Your task to perform on an android device: see tabs open on other devices in the chrome app Image 0: 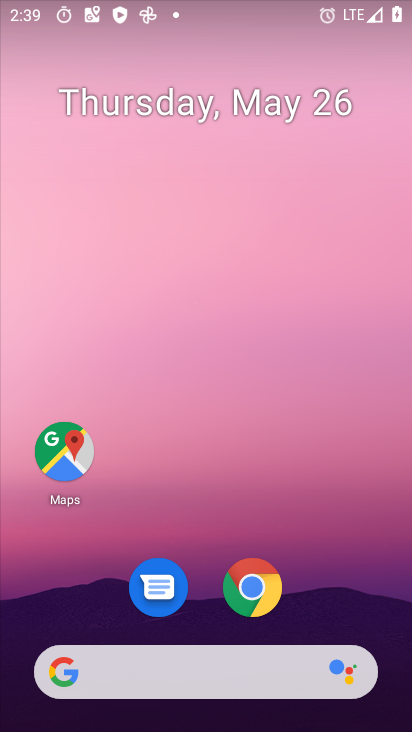
Step 0: drag from (385, 616) to (382, 162)
Your task to perform on an android device: see tabs open on other devices in the chrome app Image 1: 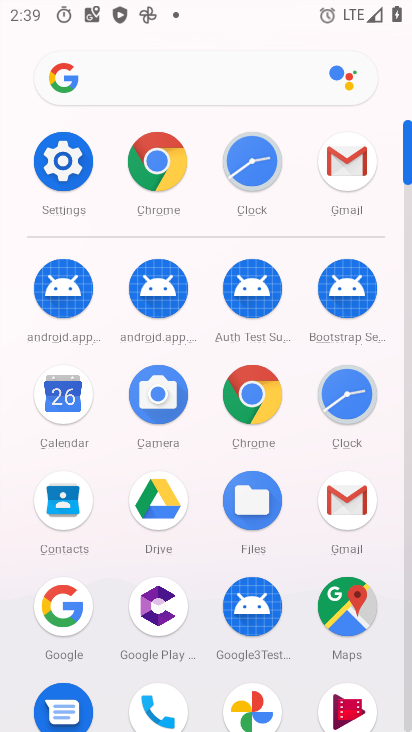
Step 1: click (271, 396)
Your task to perform on an android device: see tabs open on other devices in the chrome app Image 2: 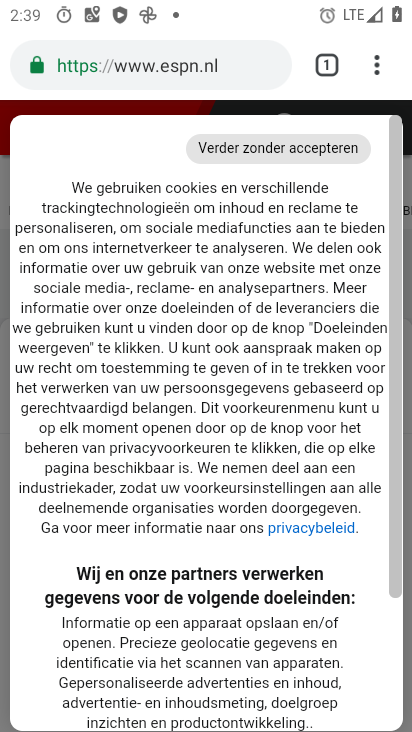
Step 2: click (373, 68)
Your task to perform on an android device: see tabs open on other devices in the chrome app Image 3: 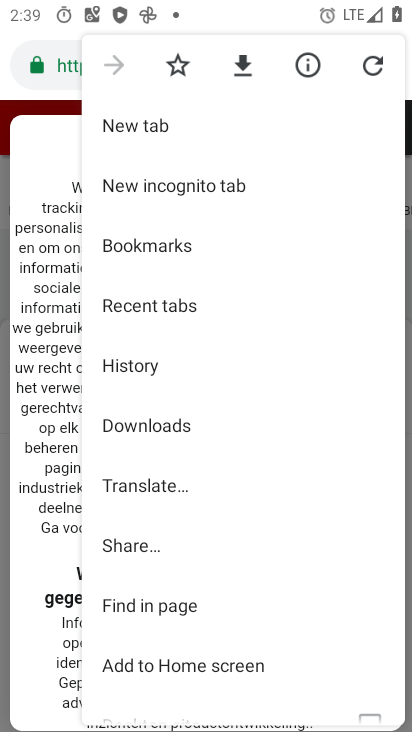
Step 3: click (189, 317)
Your task to perform on an android device: see tabs open on other devices in the chrome app Image 4: 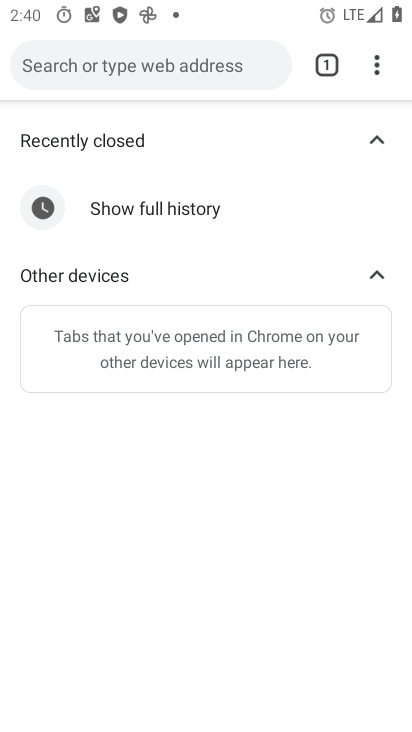
Step 4: click (327, 61)
Your task to perform on an android device: see tabs open on other devices in the chrome app Image 5: 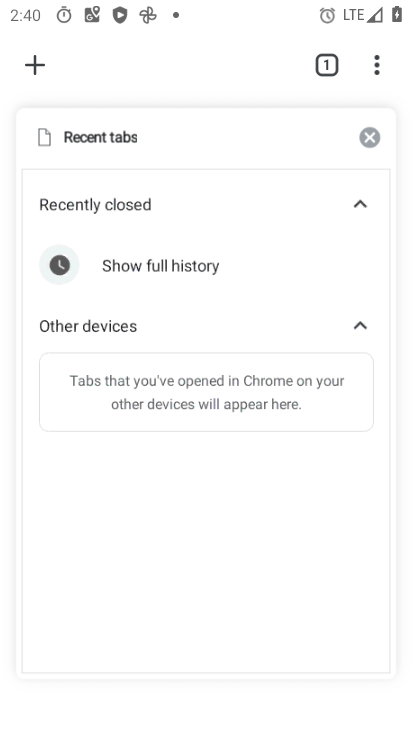
Step 5: task complete